Your task to perform on an android device: toggle sleep mode Image 0: 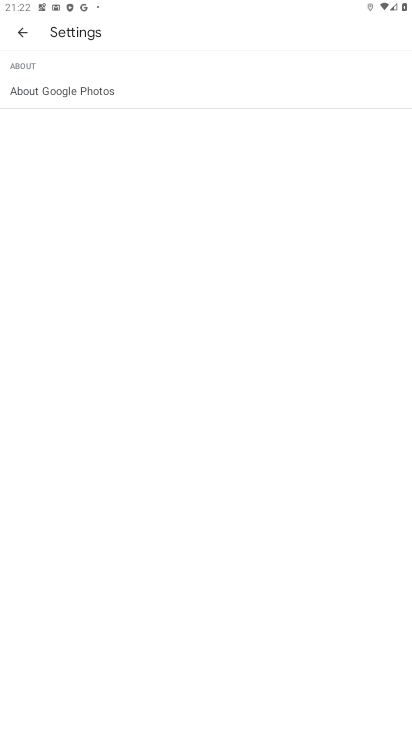
Step 0: press home button
Your task to perform on an android device: toggle sleep mode Image 1: 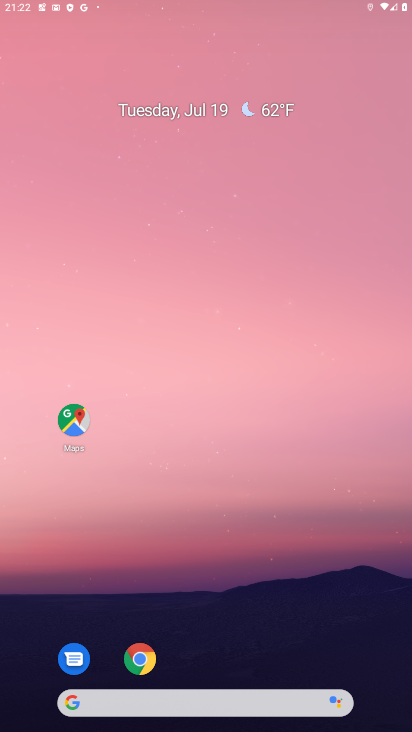
Step 1: drag from (322, 652) to (327, 112)
Your task to perform on an android device: toggle sleep mode Image 2: 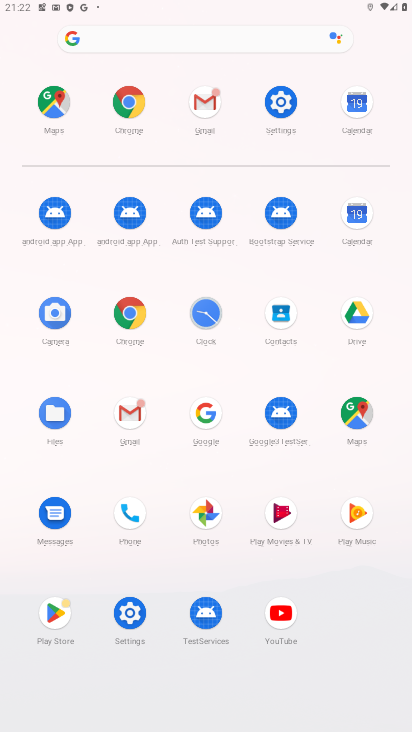
Step 2: click (295, 128)
Your task to perform on an android device: toggle sleep mode Image 3: 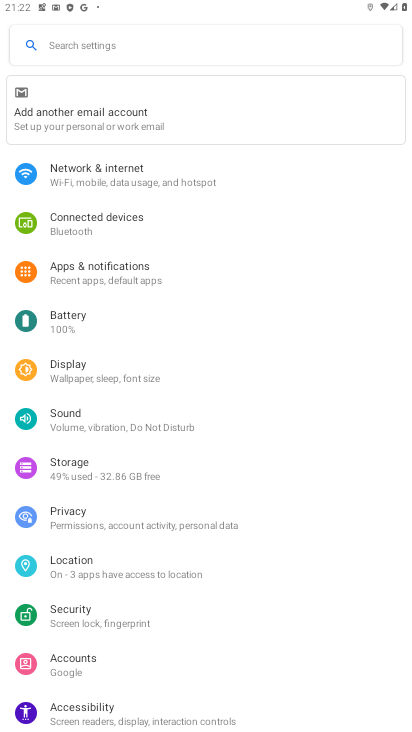
Step 3: click (92, 383)
Your task to perform on an android device: toggle sleep mode Image 4: 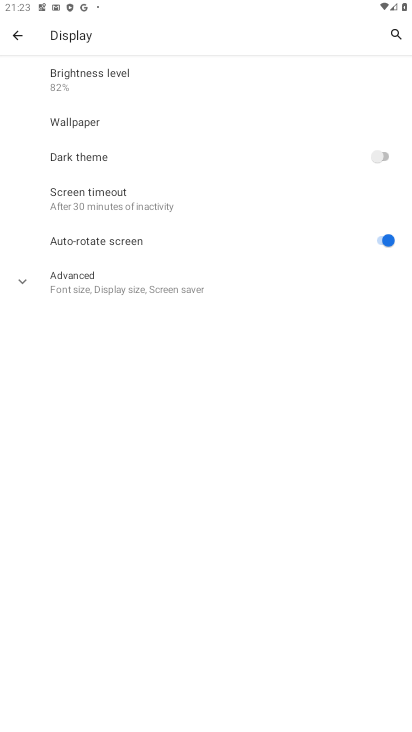
Step 4: task complete